Your task to perform on an android device: turn on airplane mode Image 0: 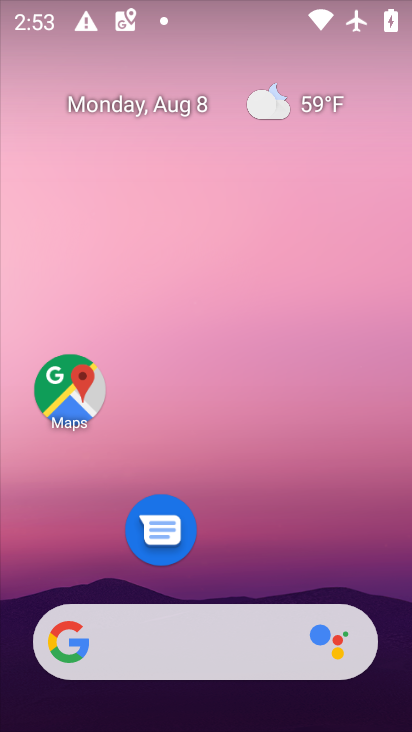
Step 0: drag from (231, 564) to (231, 104)
Your task to perform on an android device: turn on airplane mode Image 1: 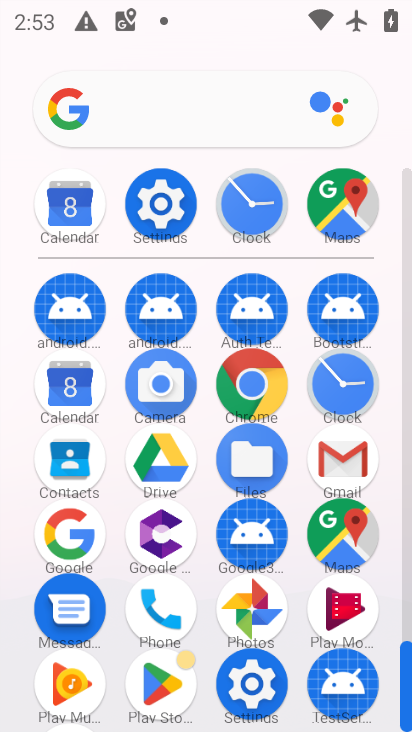
Step 1: click (155, 208)
Your task to perform on an android device: turn on airplane mode Image 2: 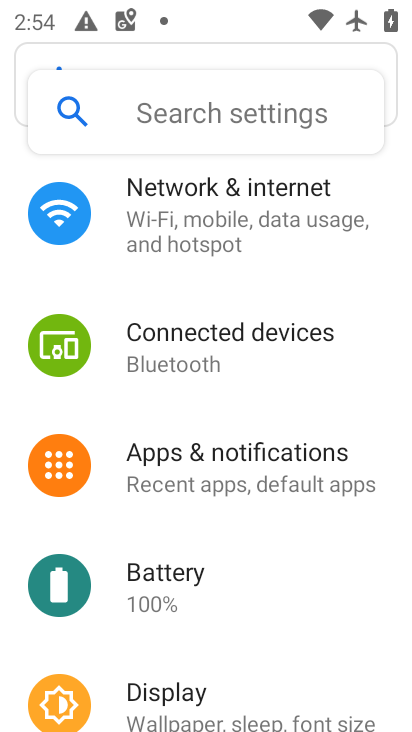
Step 2: drag from (164, 240) to (150, 580)
Your task to perform on an android device: turn on airplane mode Image 3: 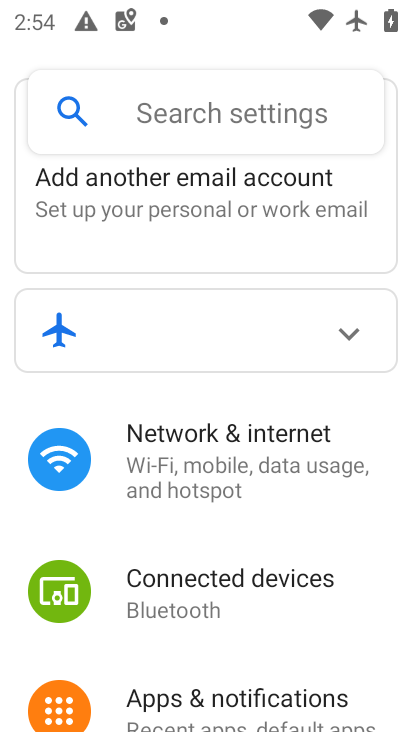
Step 3: click (191, 454)
Your task to perform on an android device: turn on airplane mode Image 4: 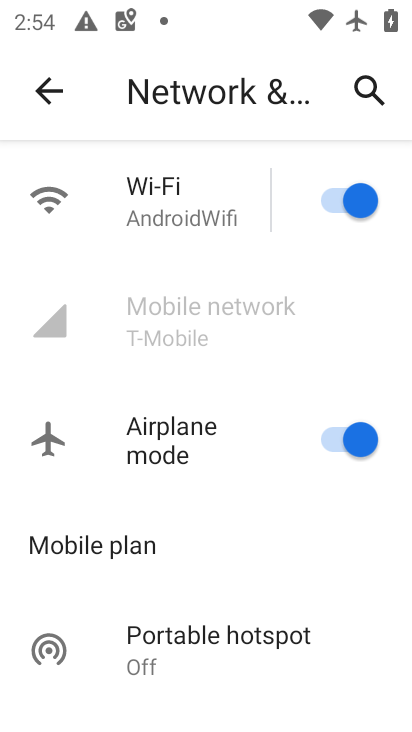
Step 4: task complete